Your task to perform on an android device: Open Google Maps Image 0: 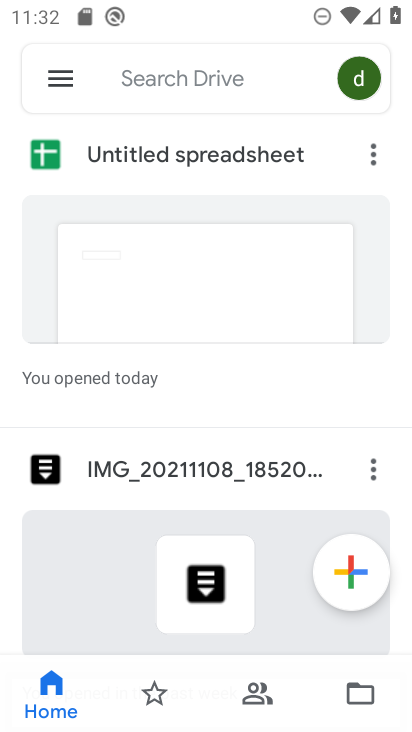
Step 0: press home button
Your task to perform on an android device: Open Google Maps Image 1: 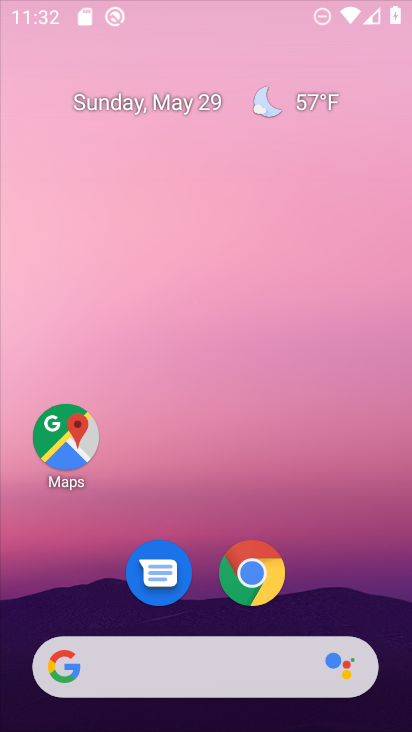
Step 1: drag from (307, 657) to (303, 150)
Your task to perform on an android device: Open Google Maps Image 2: 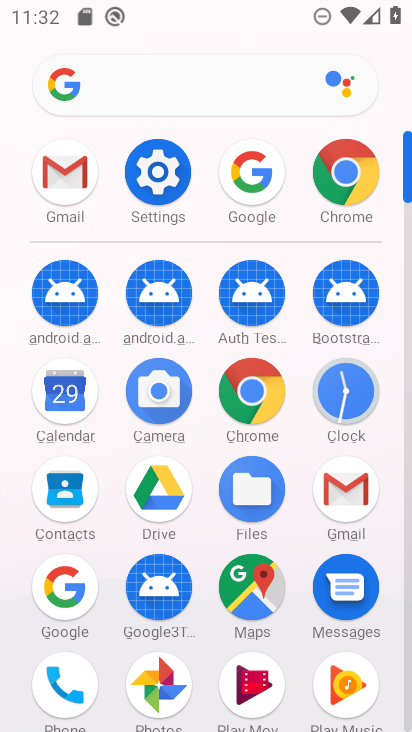
Step 2: click (239, 595)
Your task to perform on an android device: Open Google Maps Image 3: 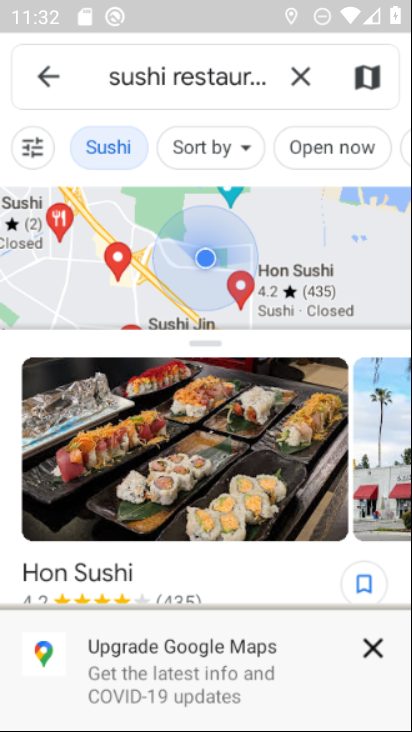
Step 3: task complete